Your task to perform on an android device: Open accessibility settings Image 0: 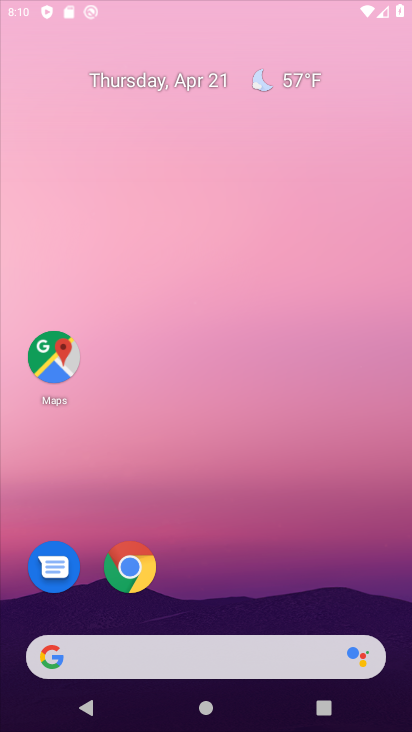
Step 0: drag from (213, 495) to (211, 21)
Your task to perform on an android device: Open accessibility settings Image 1: 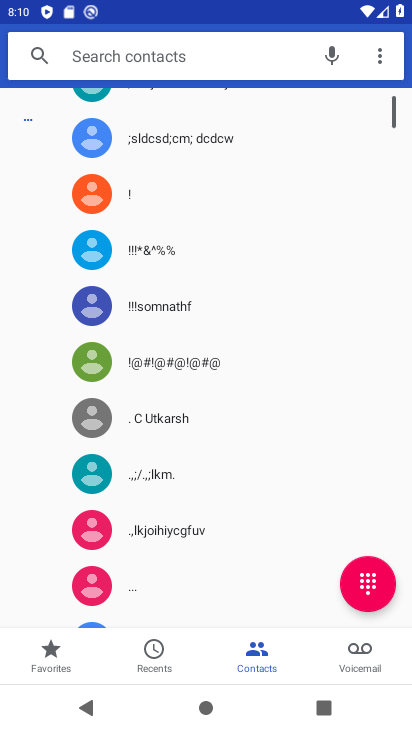
Step 1: press home button
Your task to perform on an android device: Open accessibility settings Image 2: 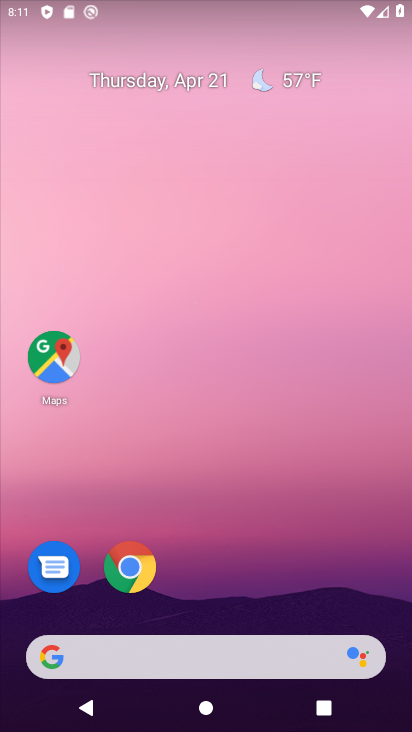
Step 2: drag from (207, 626) to (203, 24)
Your task to perform on an android device: Open accessibility settings Image 3: 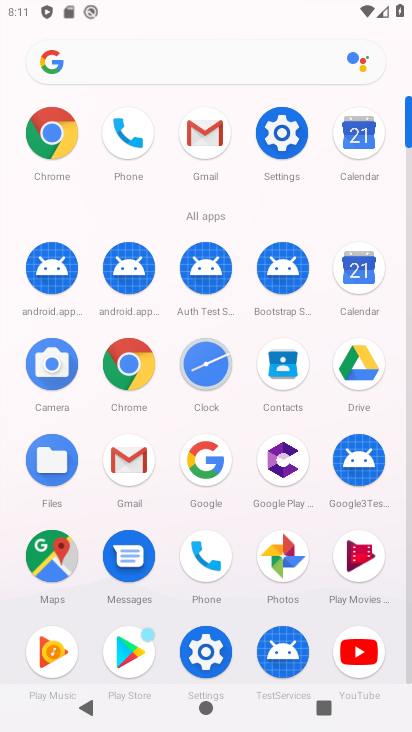
Step 3: click (282, 138)
Your task to perform on an android device: Open accessibility settings Image 4: 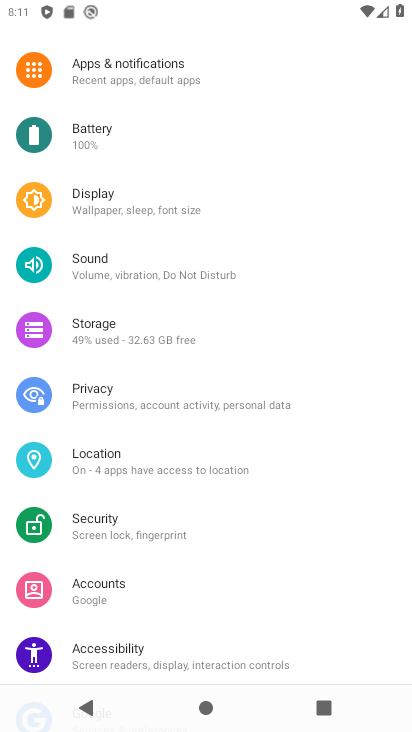
Step 4: click (118, 638)
Your task to perform on an android device: Open accessibility settings Image 5: 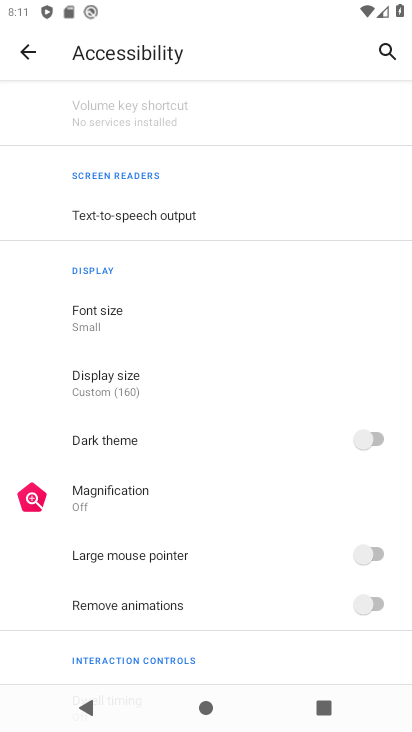
Step 5: task complete